Your task to perform on an android device: search for starred emails in the gmail app Image 0: 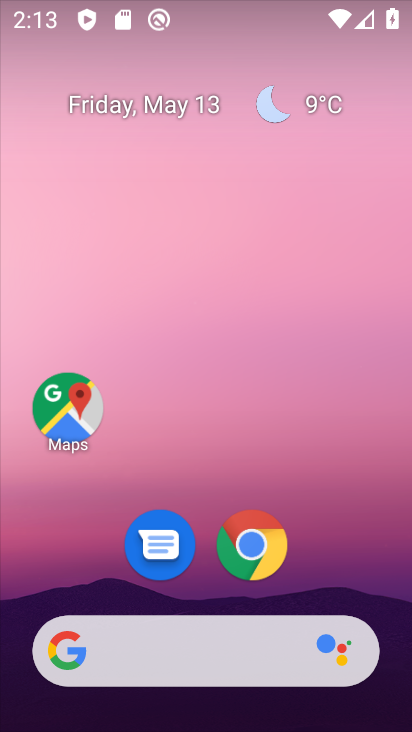
Step 0: drag from (318, 555) to (328, 119)
Your task to perform on an android device: search for starred emails in the gmail app Image 1: 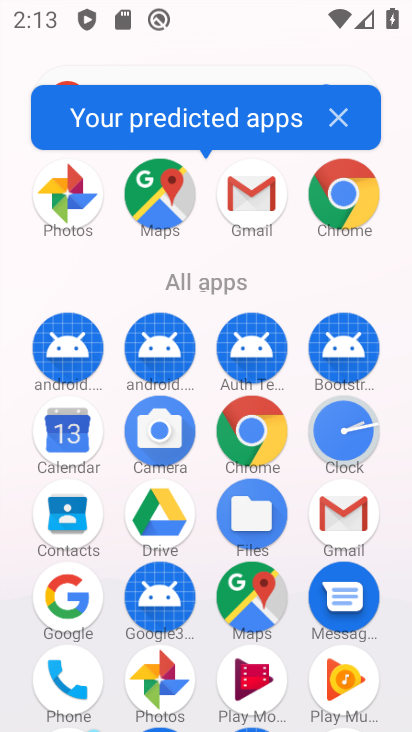
Step 1: click (261, 200)
Your task to perform on an android device: search for starred emails in the gmail app Image 2: 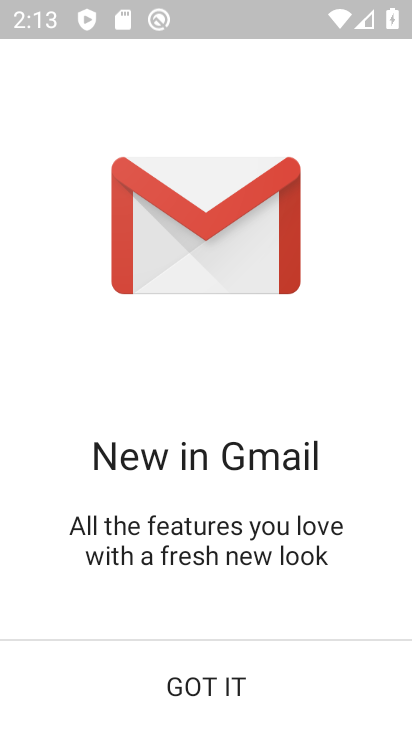
Step 2: click (222, 671)
Your task to perform on an android device: search for starred emails in the gmail app Image 3: 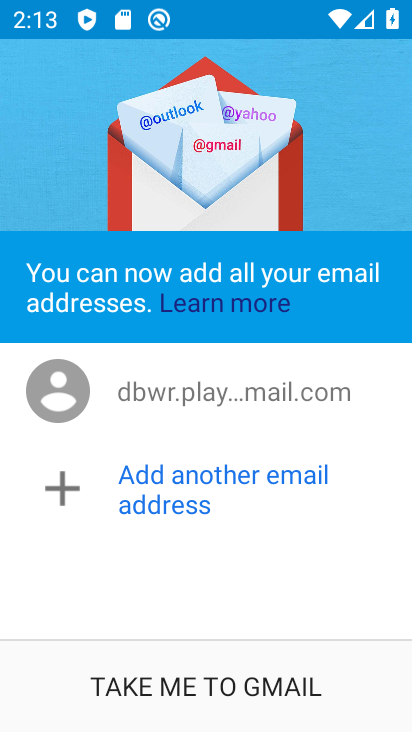
Step 3: click (214, 680)
Your task to perform on an android device: search for starred emails in the gmail app Image 4: 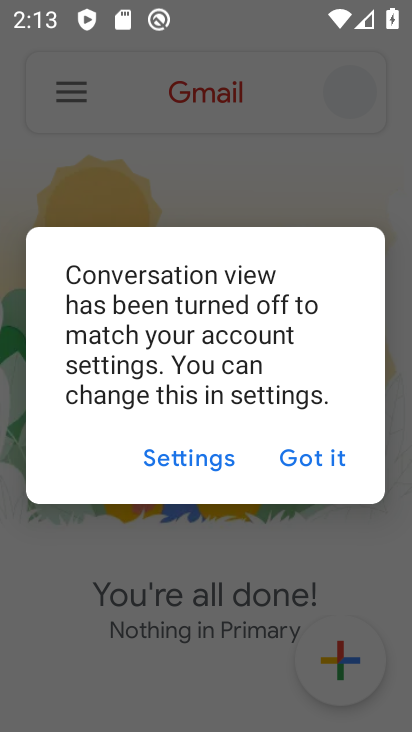
Step 4: click (311, 456)
Your task to perform on an android device: search for starred emails in the gmail app Image 5: 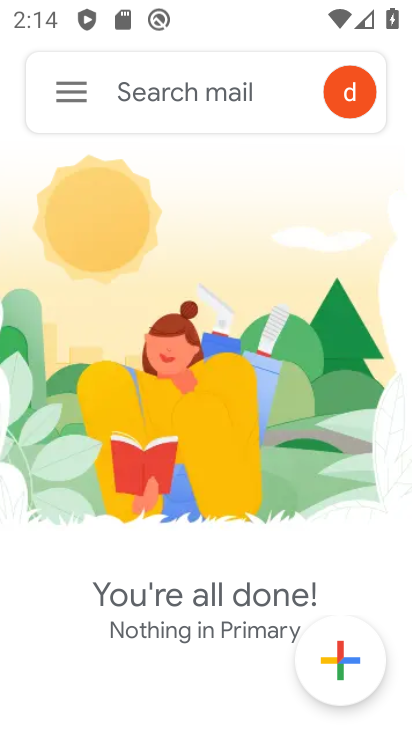
Step 5: click (64, 94)
Your task to perform on an android device: search for starred emails in the gmail app Image 6: 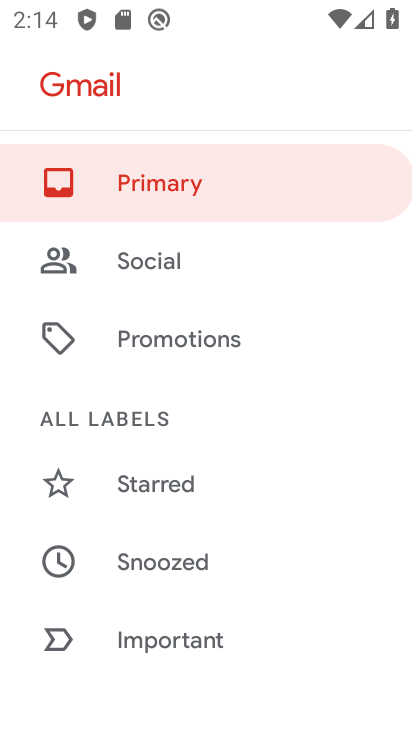
Step 6: drag from (241, 583) to (235, 188)
Your task to perform on an android device: search for starred emails in the gmail app Image 7: 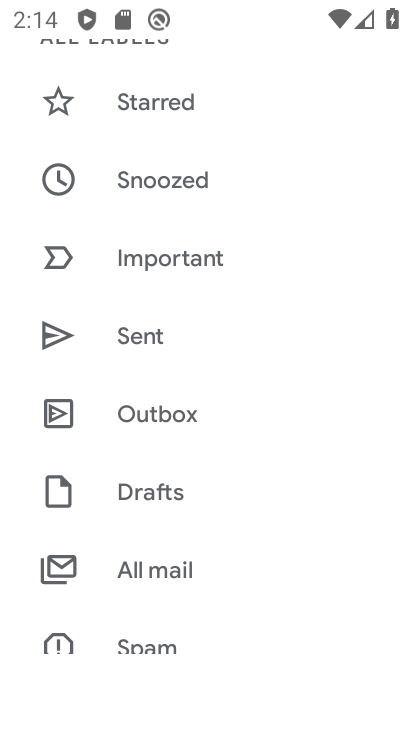
Step 7: click (165, 111)
Your task to perform on an android device: search for starred emails in the gmail app Image 8: 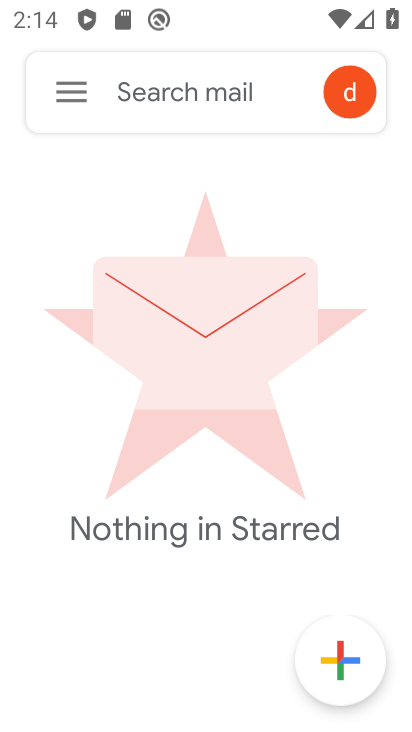
Step 8: task complete